Your task to perform on an android device: change keyboard looks Image 0: 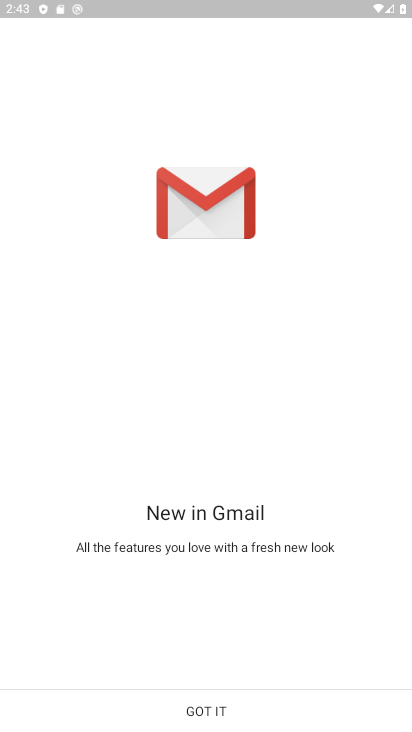
Step 0: click (217, 703)
Your task to perform on an android device: change keyboard looks Image 1: 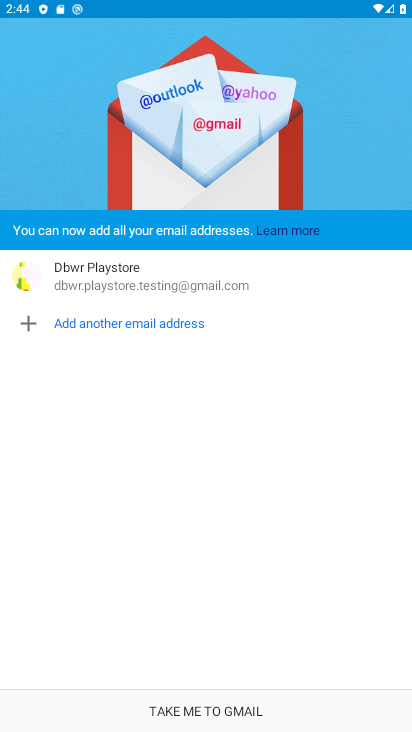
Step 1: press home button
Your task to perform on an android device: change keyboard looks Image 2: 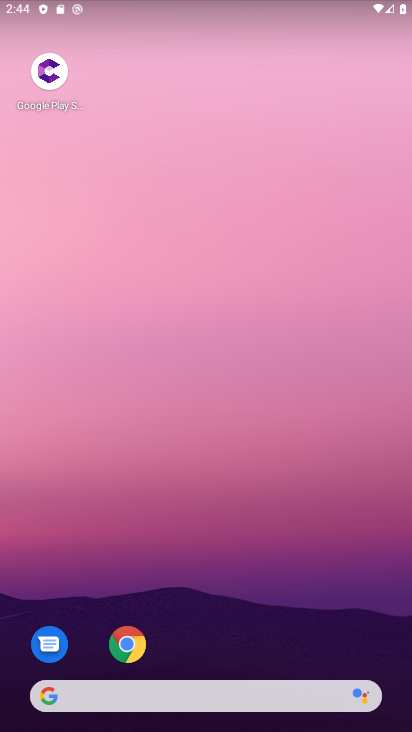
Step 2: drag from (197, 637) to (213, 60)
Your task to perform on an android device: change keyboard looks Image 3: 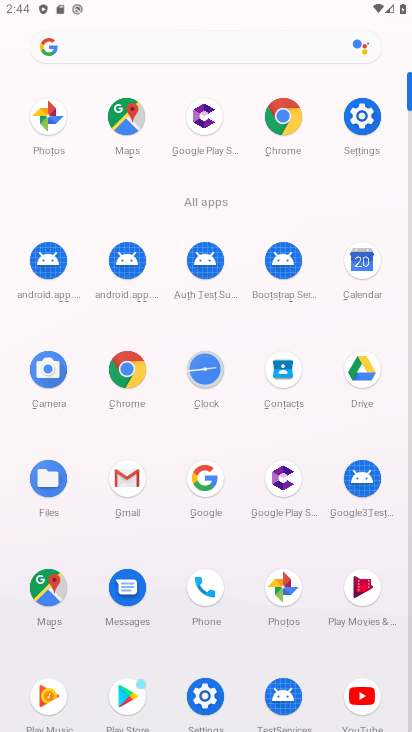
Step 3: click (366, 119)
Your task to perform on an android device: change keyboard looks Image 4: 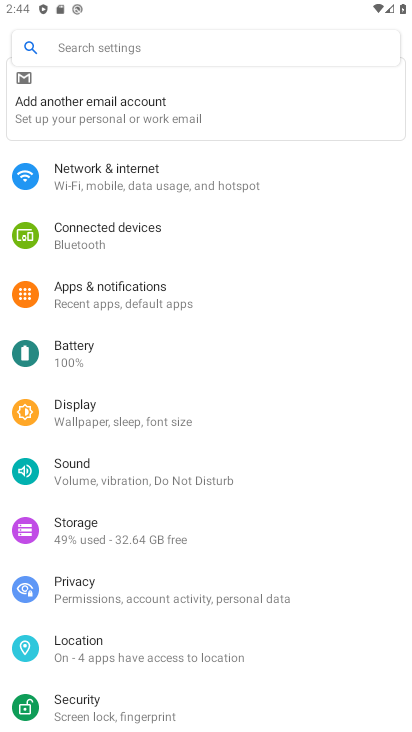
Step 4: drag from (116, 631) to (126, 276)
Your task to perform on an android device: change keyboard looks Image 5: 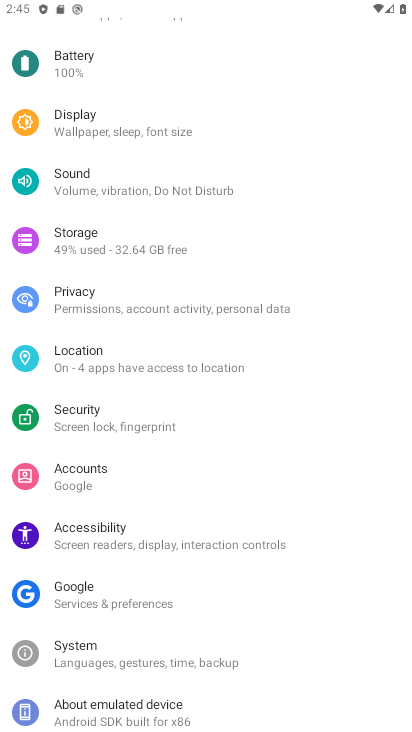
Step 5: click (104, 650)
Your task to perform on an android device: change keyboard looks Image 6: 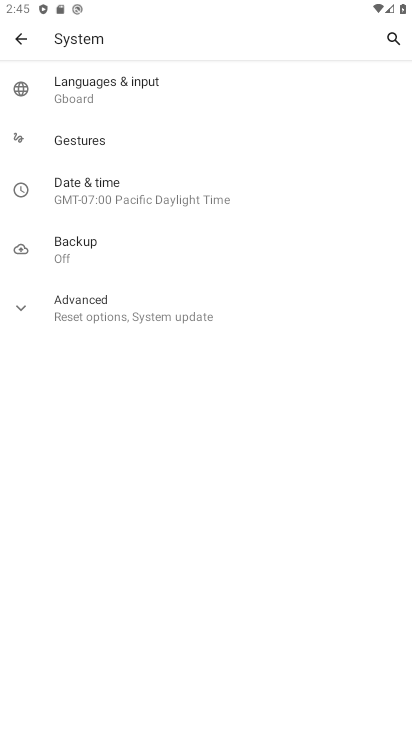
Step 6: click (112, 94)
Your task to perform on an android device: change keyboard looks Image 7: 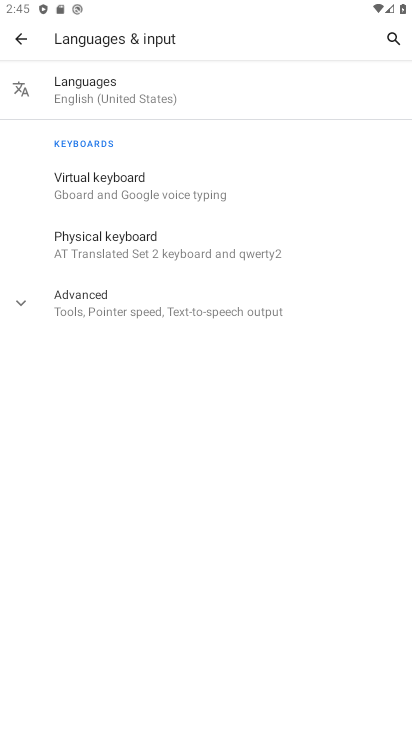
Step 7: click (131, 194)
Your task to perform on an android device: change keyboard looks Image 8: 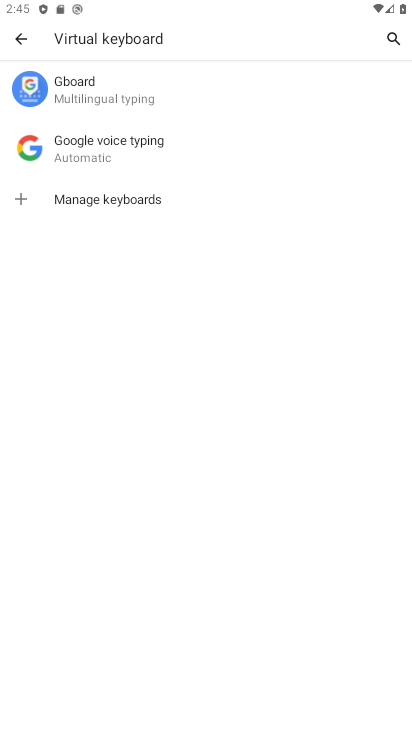
Step 8: click (108, 97)
Your task to perform on an android device: change keyboard looks Image 9: 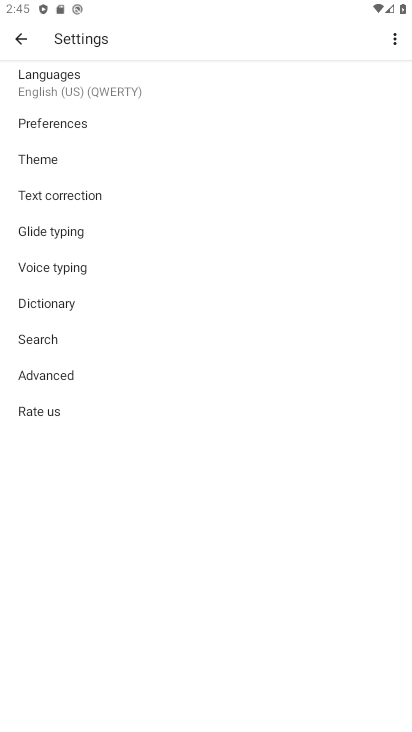
Step 9: click (52, 161)
Your task to perform on an android device: change keyboard looks Image 10: 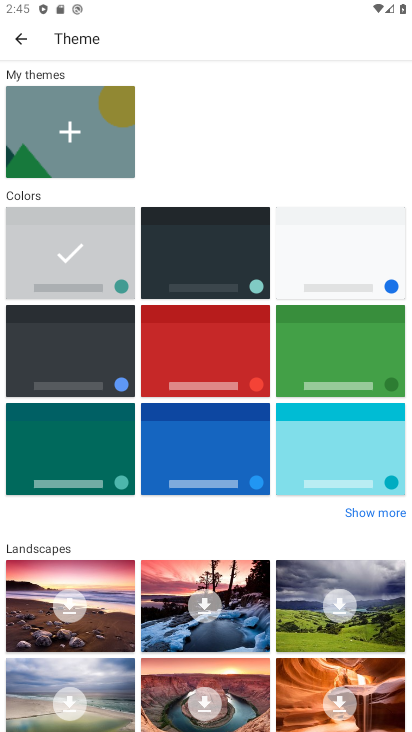
Step 10: click (214, 251)
Your task to perform on an android device: change keyboard looks Image 11: 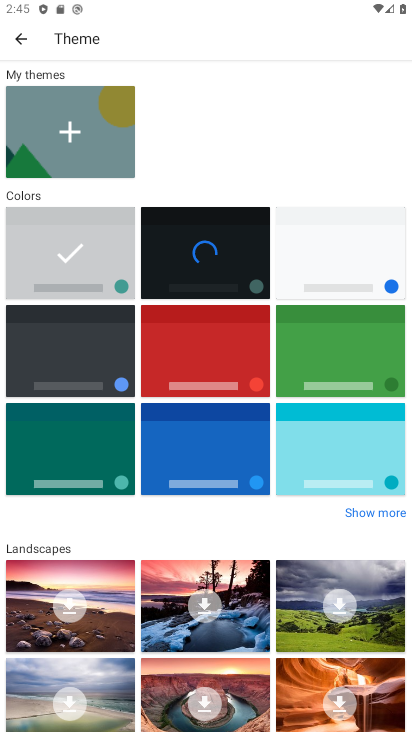
Step 11: task complete